Your task to perform on an android device: toggle priority inbox in the gmail app Image 0: 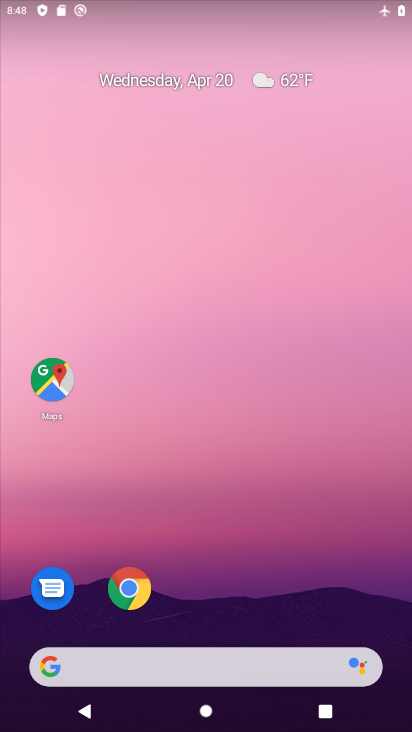
Step 0: drag from (244, 555) to (82, 4)
Your task to perform on an android device: toggle priority inbox in the gmail app Image 1: 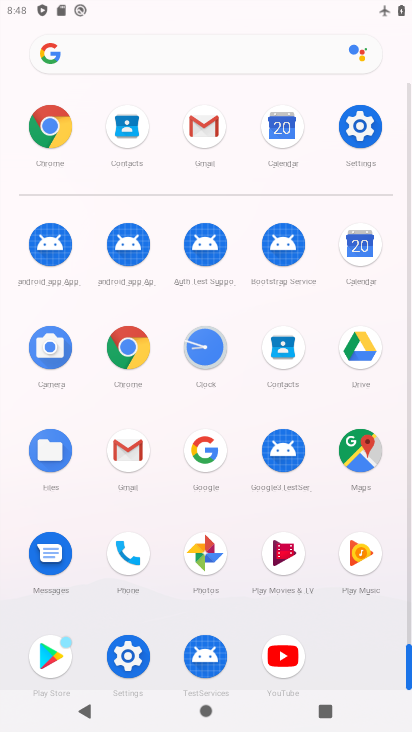
Step 1: click (130, 445)
Your task to perform on an android device: toggle priority inbox in the gmail app Image 2: 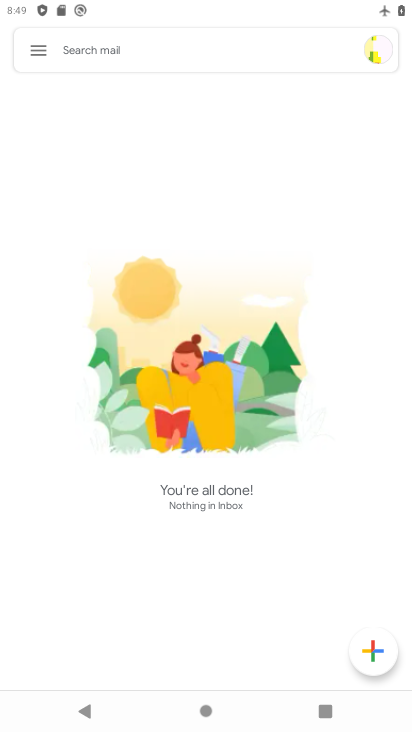
Step 2: click (35, 45)
Your task to perform on an android device: toggle priority inbox in the gmail app Image 3: 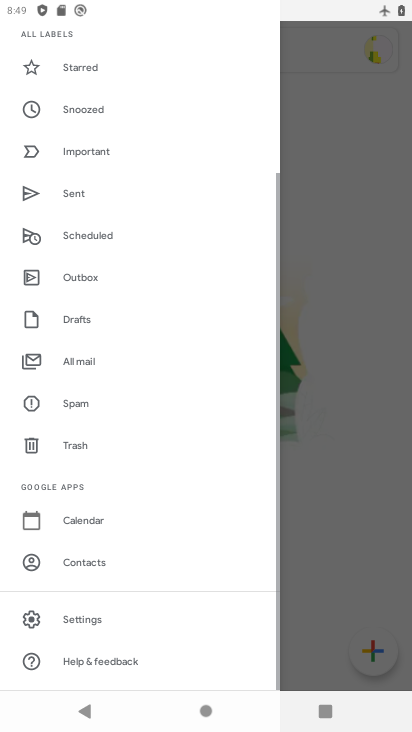
Step 3: drag from (128, 601) to (160, 149)
Your task to perform on an android device: toggle priority inbox in the gmail app Image 4: 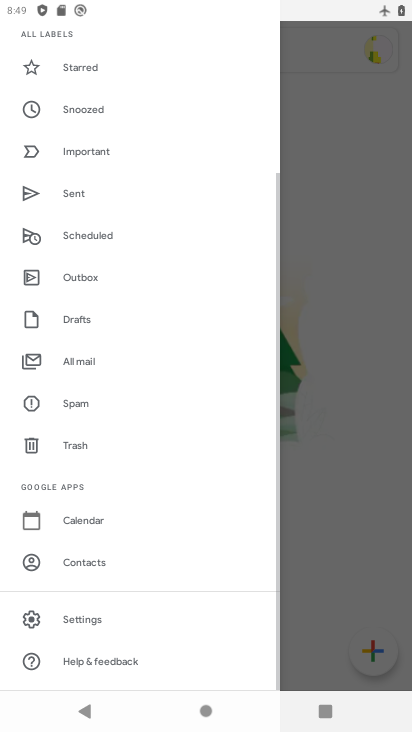
Step 4: click (88, 608)
Your task to perform on an android device: toggle priority inbox in the gmail app Image 5: 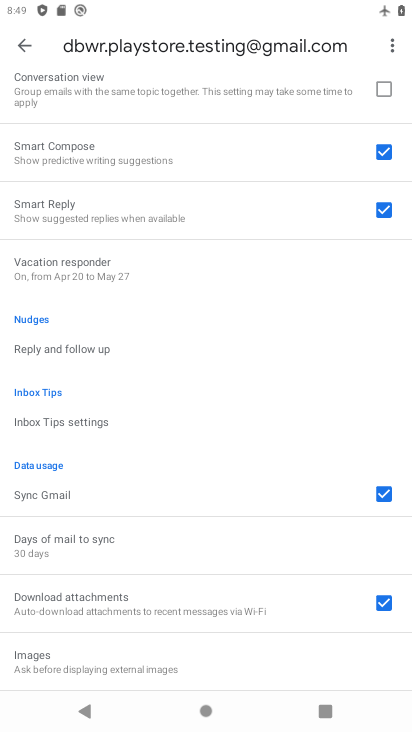
Step 5: click (31, 42)
Your task to perform on an android device: toggle priority inbox in the gmail app Image 6: 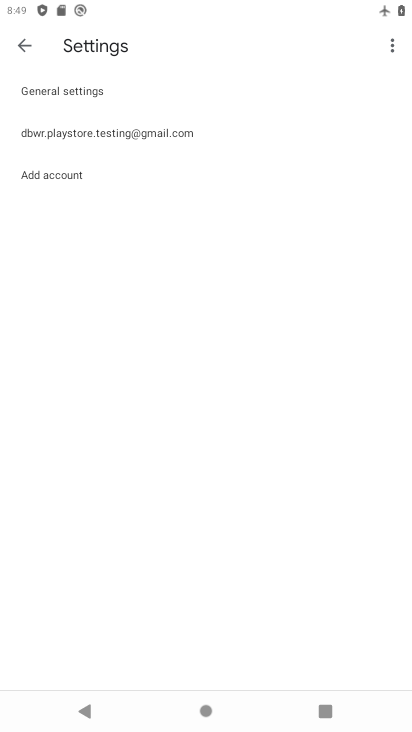
Step 6: click (95, 134)
Your task to perform on an android device: toggle priority inbox in the gmail app Image 7: 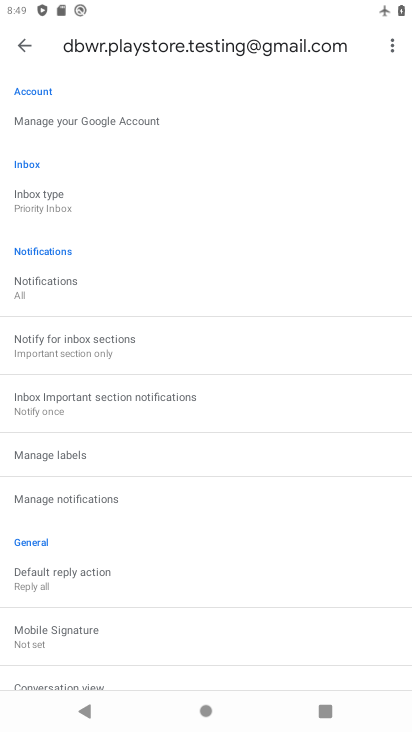
Step 7: click (64, 198)
Your task to perform on an android device: toggle priority inbox in the gmail app Image 8: 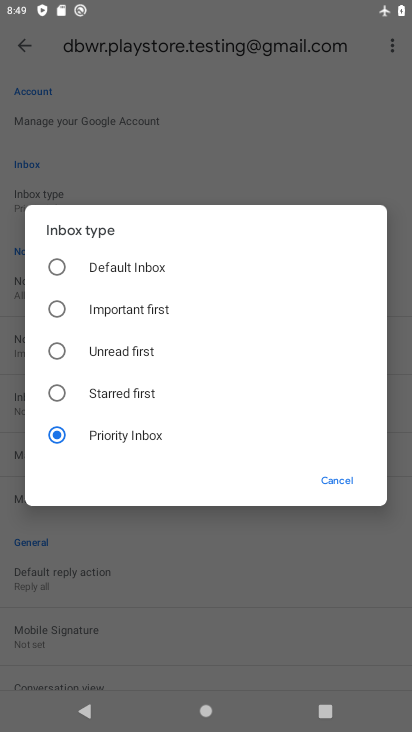
Step 8: click (113, 265)
Your task to perform on an android device: toggle priority inbox in the gmail app Image 9: 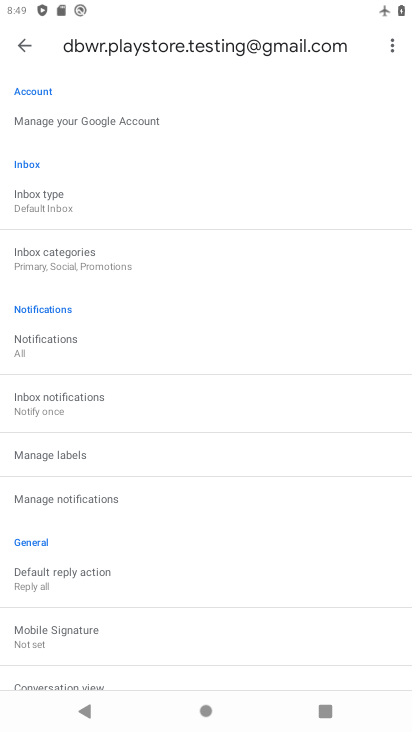
Step 9: task complete